Your task to perform on an android device: What's the weather going to be tomorrow? Image 0: 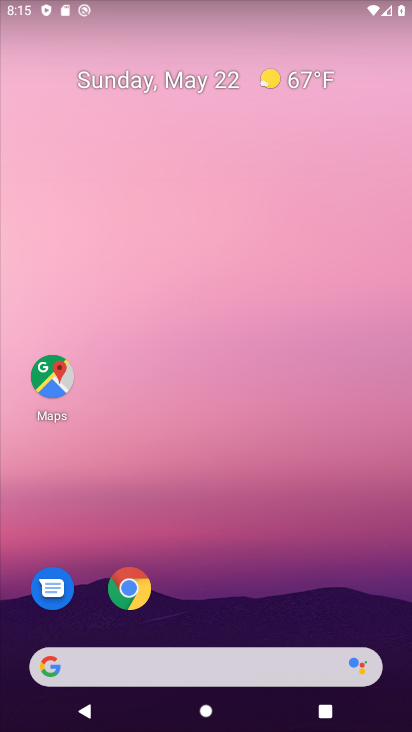
Step 0: drag from (208, 554) to (208, 173)
Your task to perform on an android device: What's the weather going to be tomorrow? Image 1: 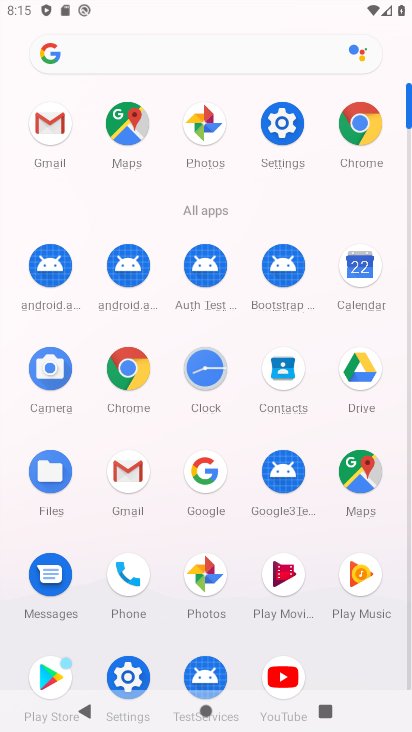
Step 1: click (200, 480)
Your task to perform on an android device: What's the weather going to be tomorrow? Image 2: 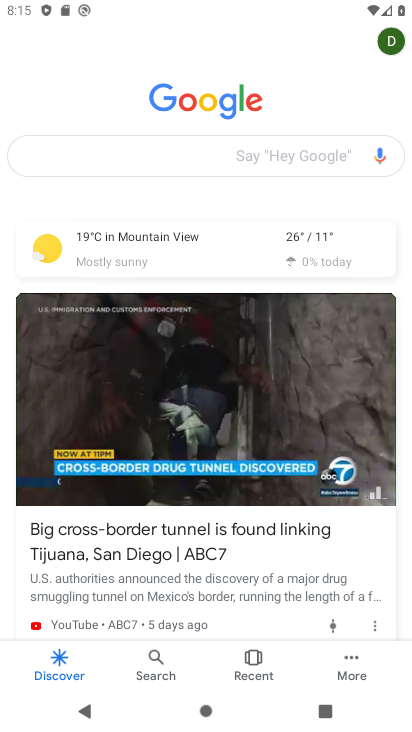
Step 2: click (158, 258)
Your task to perform on an android device: What's the weather going to be tomorrow? Image 3: 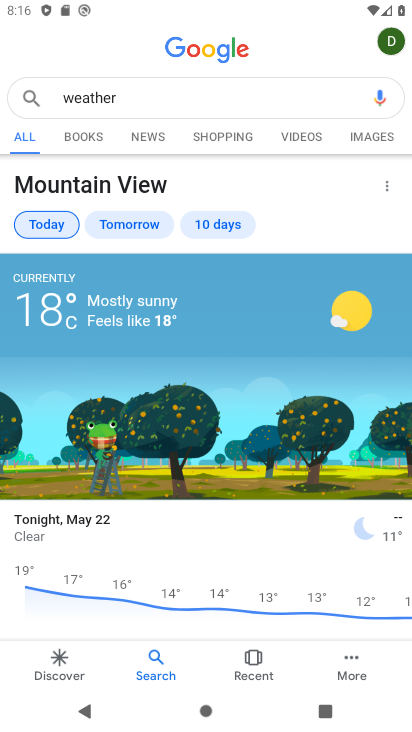
Step 3: click (139, 225)
Your task to perform on an android device: What's the weather going to be tomorrow? Image 4: 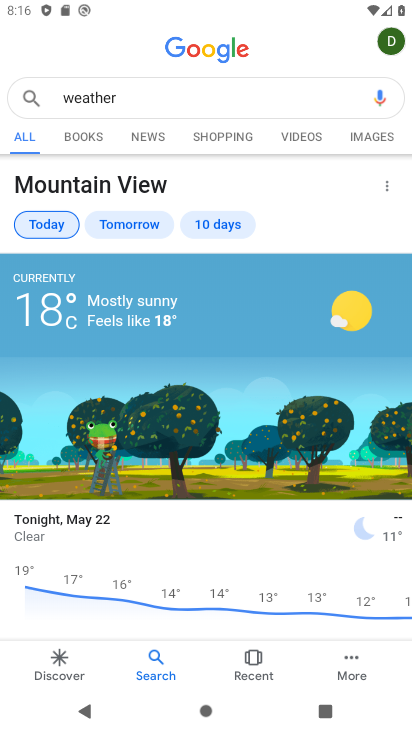
Step 4: click (130, 217)
Your task to perform on an android device: What's the weather going to be tomorrow? Image 5: 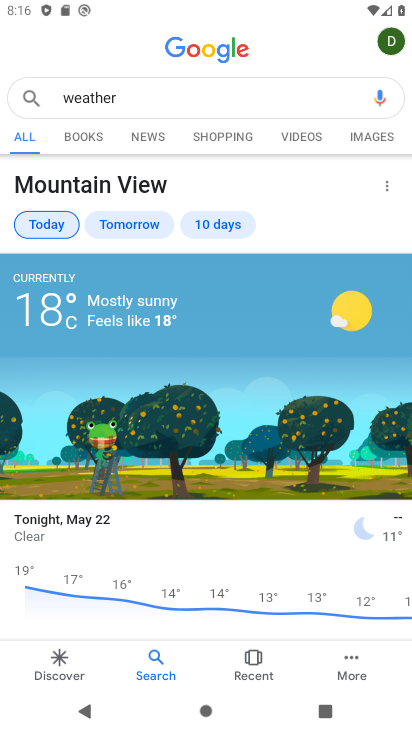
Step 5: click (138, 231)
Your task to perform on an android device: What's the weather going to be tomorrow? Image 6: 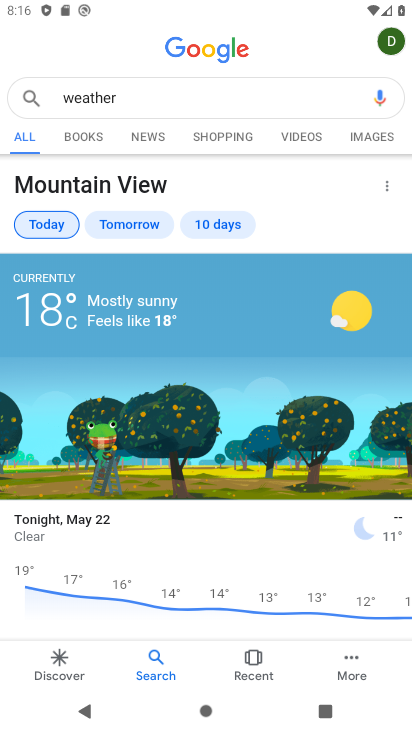
Step 6: drag from (195, 365) to (195, 227)
Your task to perform on an android device: What's the weather going to be tomorrow? Image 7: 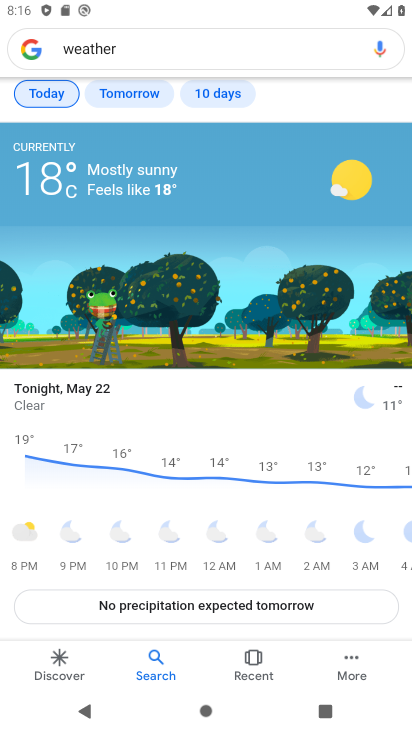
Step 7: click (149, 289)
Your task to perform on an android device: What's the weather going to be tomorrow? Image 8: 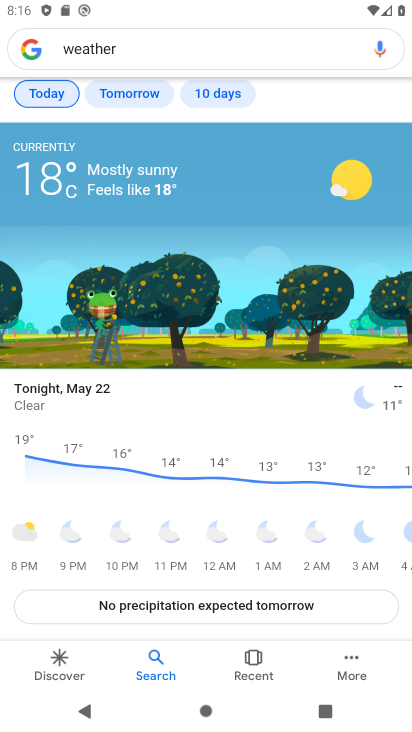
Step 8: click (131, 82)
Your task to perform on an android device: What's the weather going to be tomorrow? Image 9: 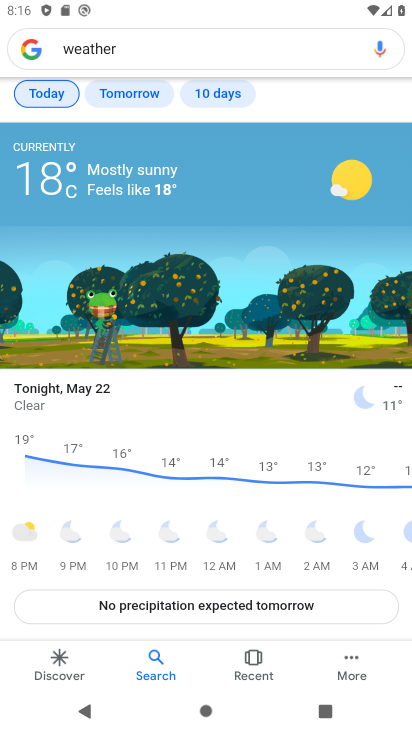
Step 9: click (131, 85)
Your task to perform on an android device: What's the weather going to be tomorrow? Image 10: 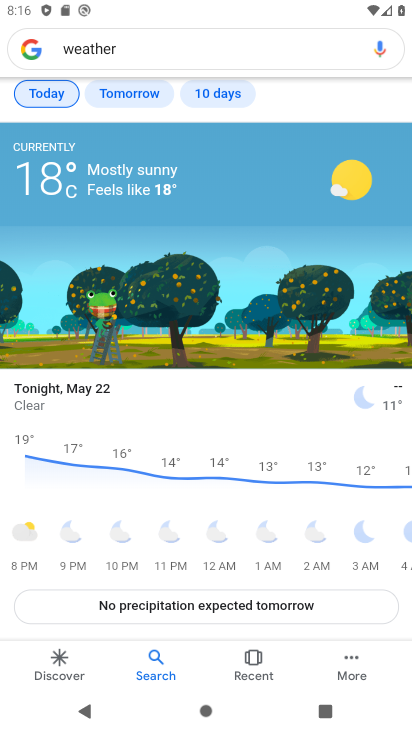
Step 10: click (131, 85)
Your task to perform on an android device: What's the weather going to be tomorrow? Image 11: 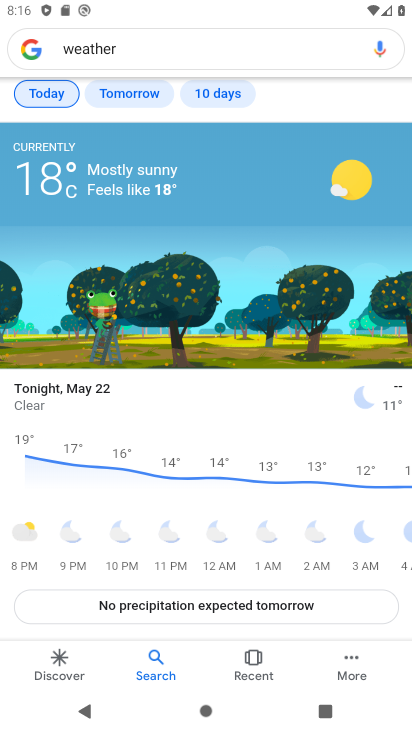
Step 11: click (130, 93)
Your task to perform on an android device: What's the weather going to be tomorrow? Image 12: 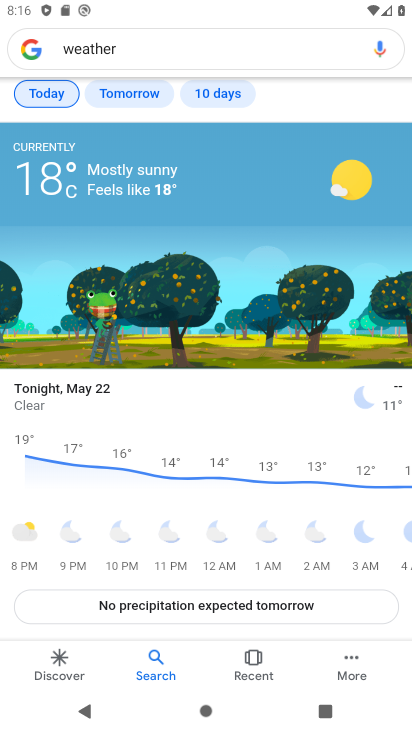
Step 12: click (130, 93)
Your task to perform on an android device: What's the weather going to be tomorrow? Image 13: 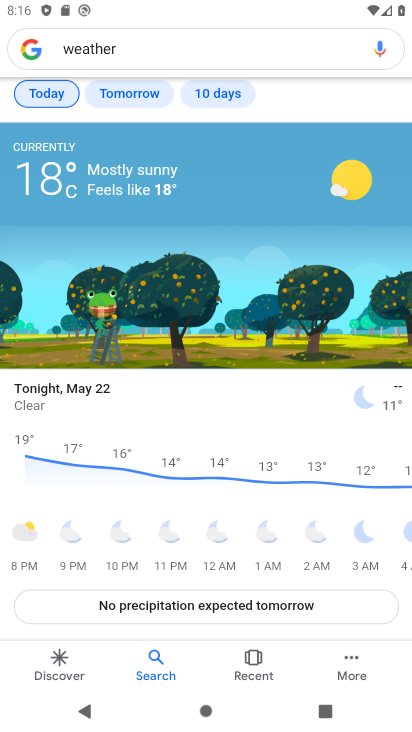
Step 13: task complete